Your task to perform on an android device: open a new tab in the chrome app Image 0: 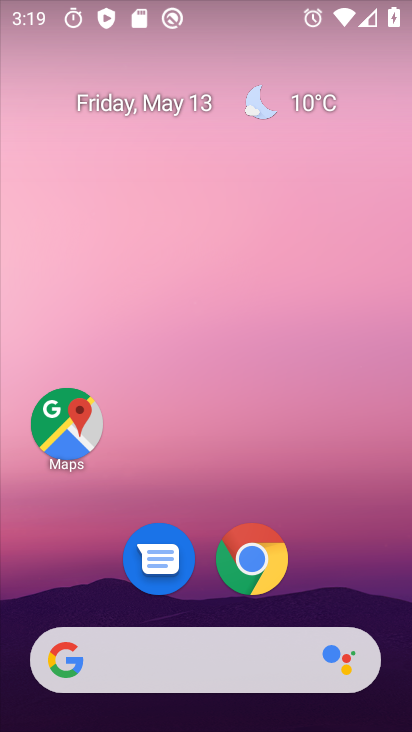
Step 0: click (249, 572)
Your task to perform on an android device: open a new tab in the chrome app Image 1: 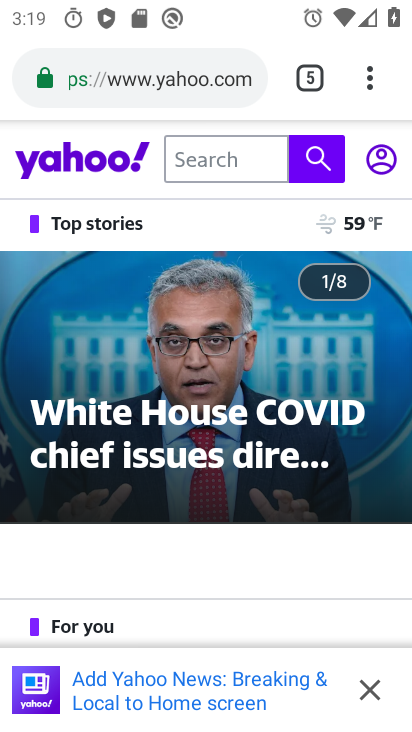
Step 1: click (298, 81)
Your task to perform on an android device: open a new tab in the chrome app Image 2: 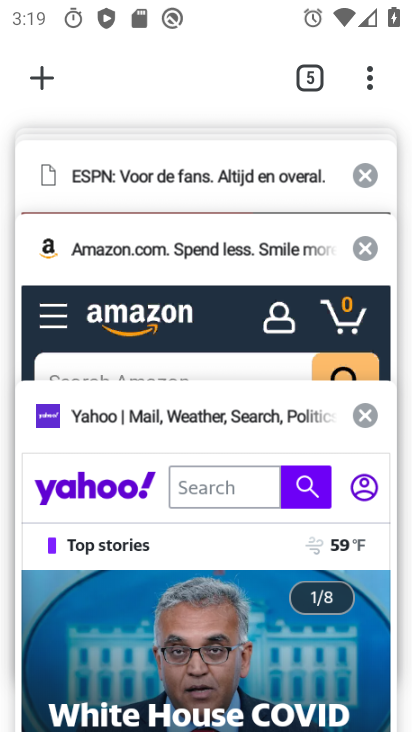
Step 2: click (48, 75)
Your task to perform on an android device: open a new tab in the chrome app Image 3: 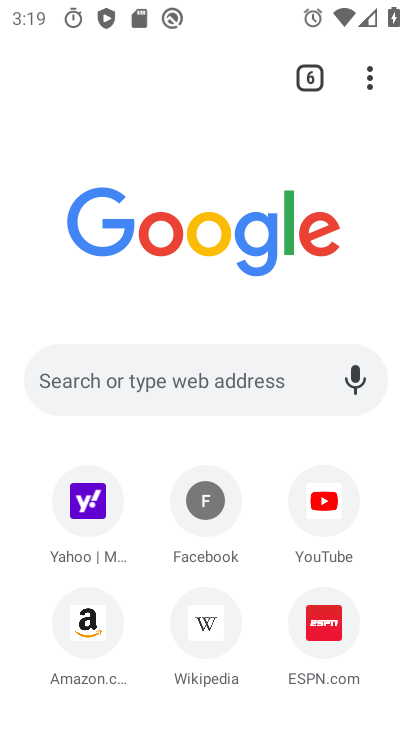
Step 3: task complete